Your task to perform on an android device: Do I have any events tomorrow? Image 0: 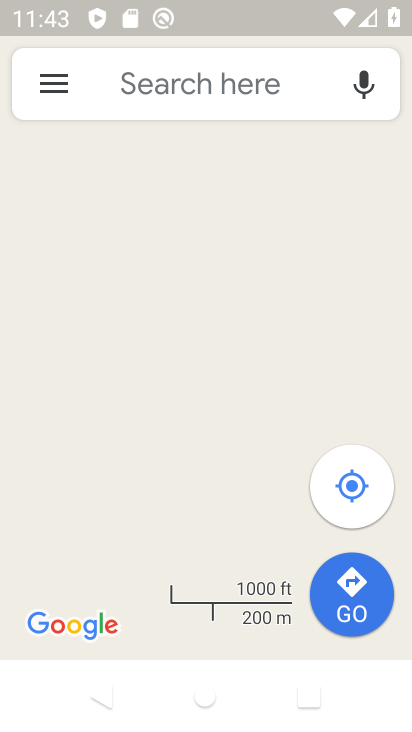
Step 0: press home button
Your task to perform on an android device: Do I have any events tomorrow? Image 1: 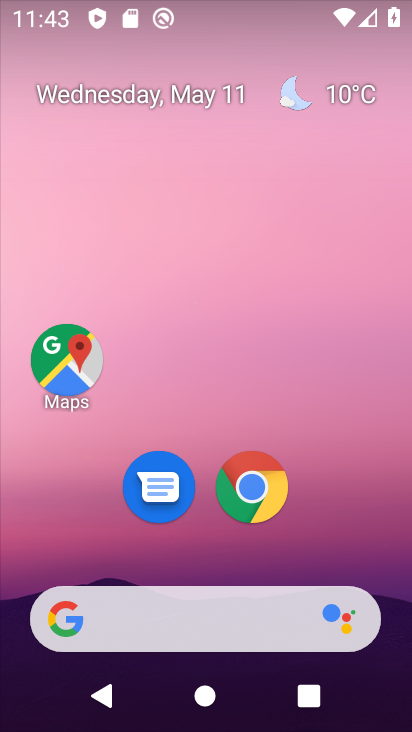
Step 1: drag from (191, 583) to (337, 50)
Your task to perform on an android device: Do I have any events tomorrow? Image 2: 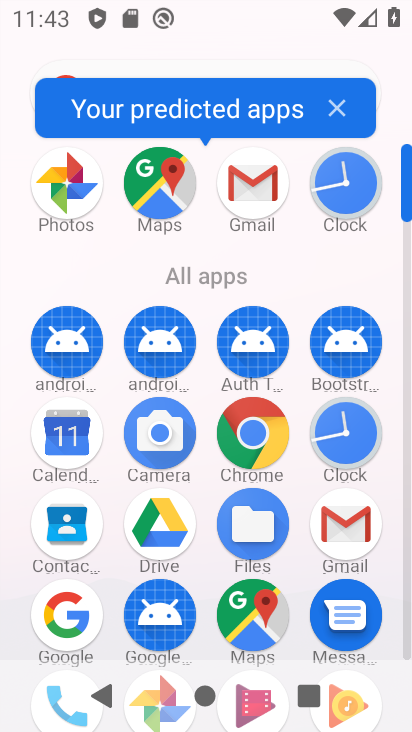
Step 2: click (42, 446)
Your task to perform on an android device: Do I have any events tomorrow? Image 3: 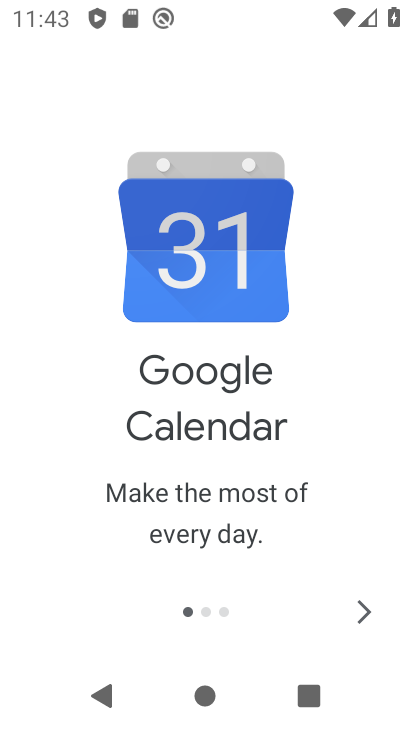
Step 3: click (359, 604)
Your task to perform on an android device: Do I have any events tomorrow? Image 4: 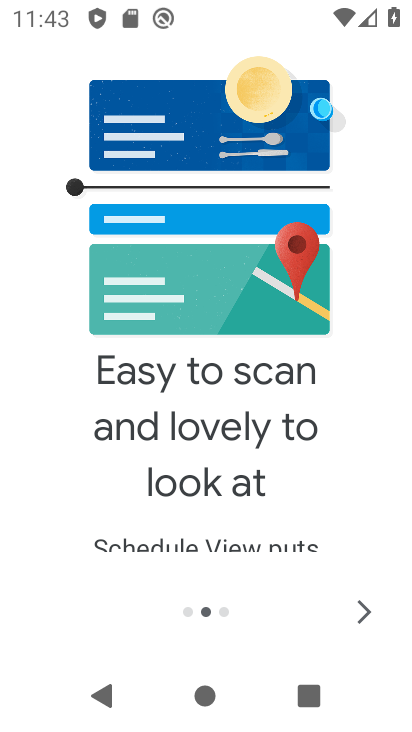
Step 4: click (359, 604)
Your task to perform on an android device: Do I have any events tomorrow? Image 5: 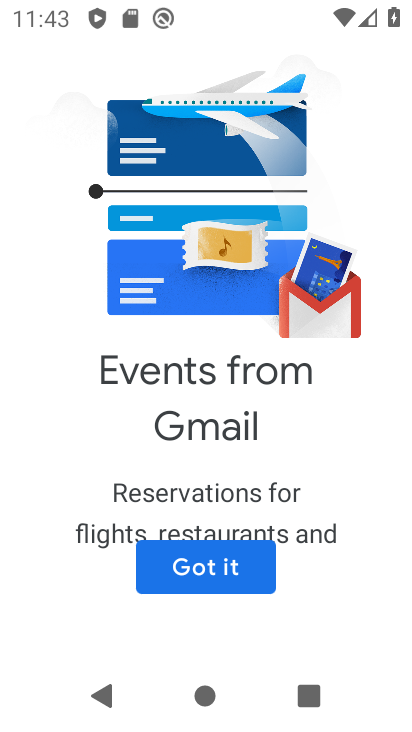
Step 5: click (214, 557)
Your task to perform on an android device: Do I have any events tomorrow? Image 6: 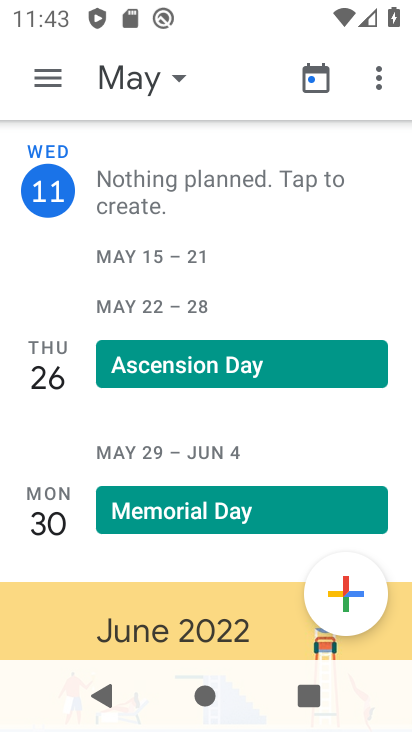
Step 6: click (44, 68)
Your task to perform on an android device: Do I have any events tomorrow? Image 7: 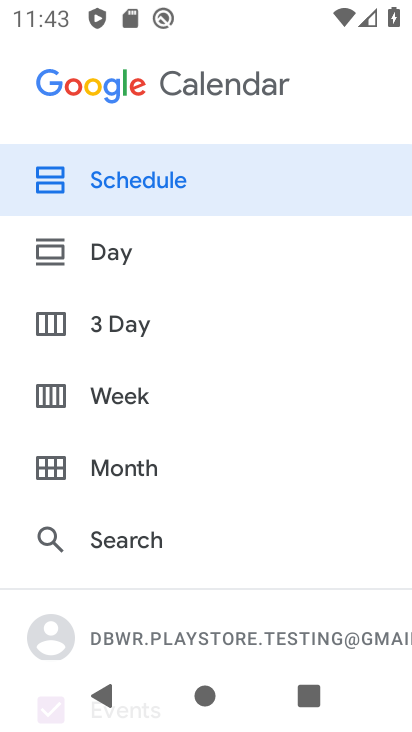
Step 7: drag from (112, 401) to (111, 478)
Your task to perform on an android device: Do I have any events tomorrow? Image 8: 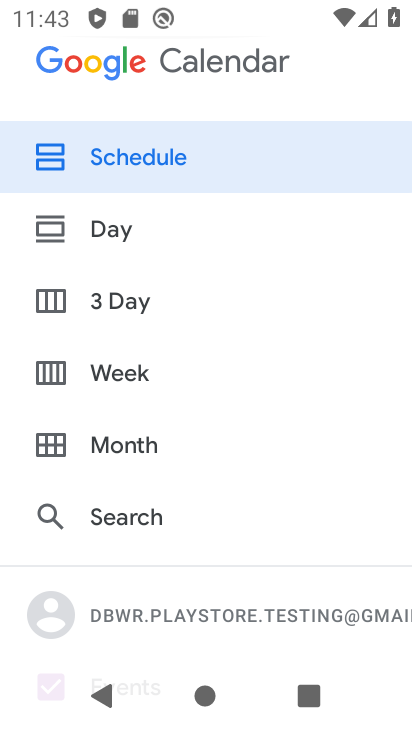
Step 8: click (111, 478)
Your task to perform on an android device: Do I have any events tomorrow? Image 9: 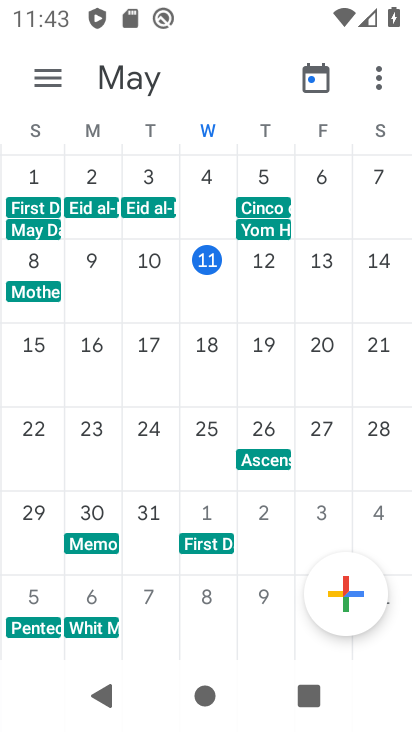
Step 9: click (260, 264)
Your task to perform on an android device: Do I have any events tomorrow? Image 10: 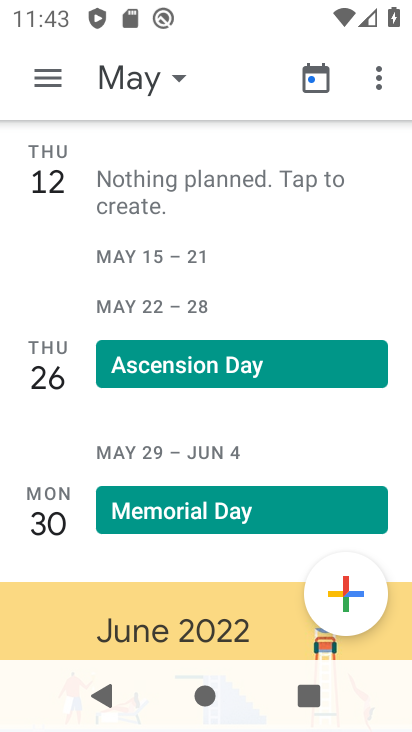
Step 10: task complete